Your task to perform on an android device: Show me popular games on the Play Store Image 0: 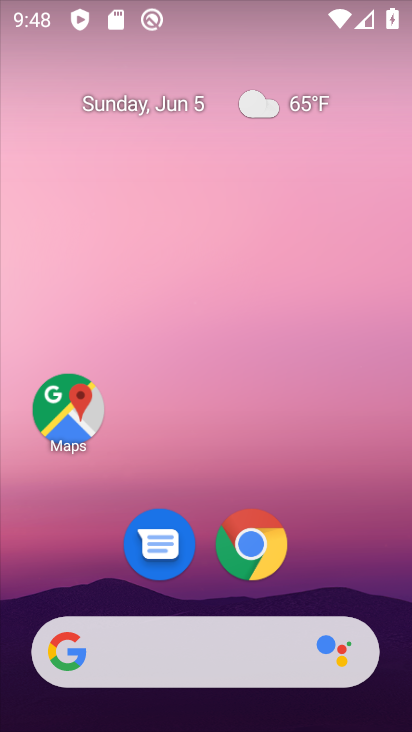
Step 0: drag from (370, 573) to (272, 155)
Your task to perform on an android device: Show me popular games on the Play Store Image 1: 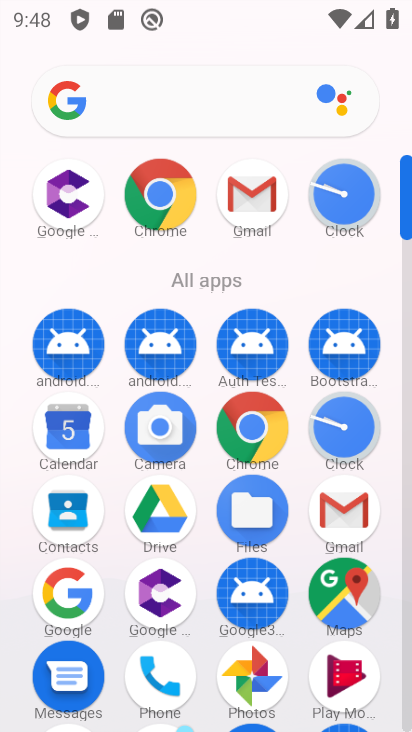
Step 1: task complete